Your task to perform on an android device: Turn off the flashlight Image 0: 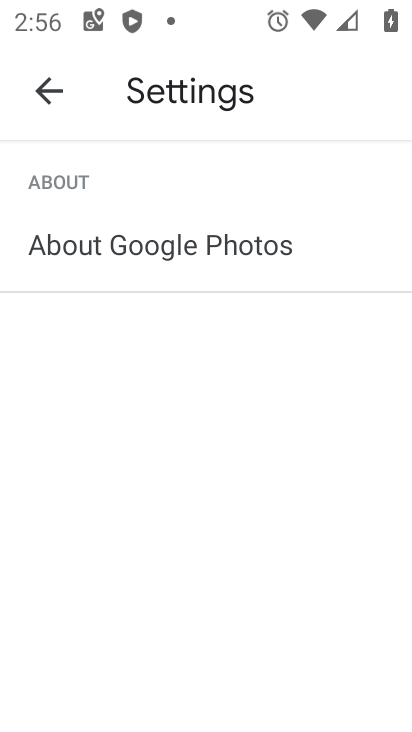
Step 0: press home button
Your task to perform on an android device: Turn off the flashlight Image 1: 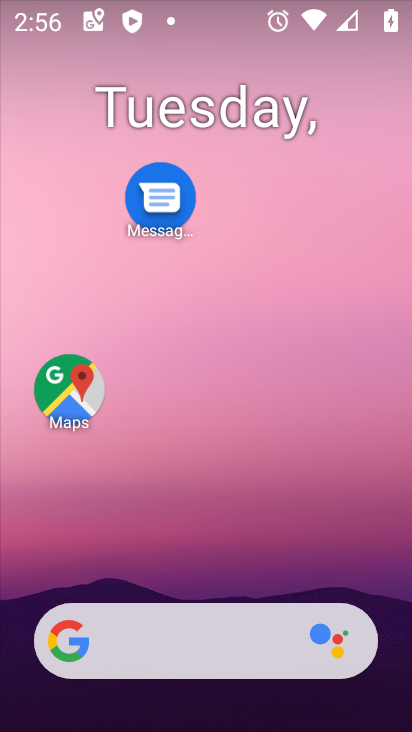
Step 1: drag from (204, 574) to (217, 224)
Your task to perform on an android device: Turn off the flashlight Image 2: 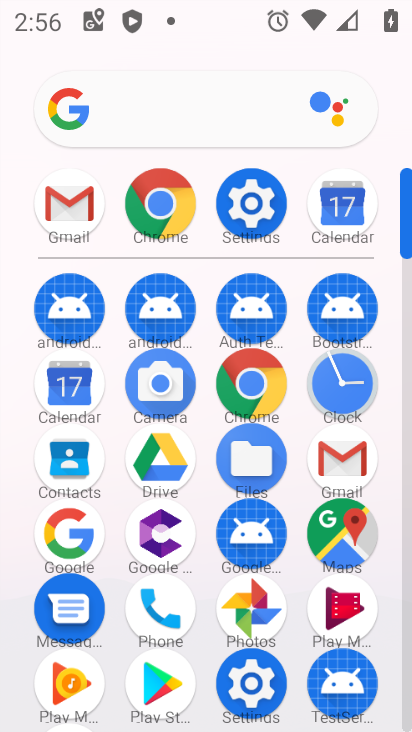
Step 2: click (243, 209)
Your task to perform on an android device: Turn off the flashlight Image 3: 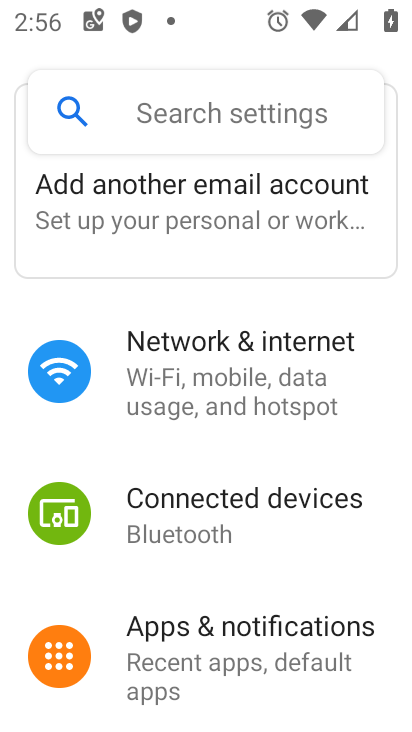
Step 3: drag from (225, 271) to (262, 363)
Your task to perform on an android device: Turn off the flashlight Image 4: 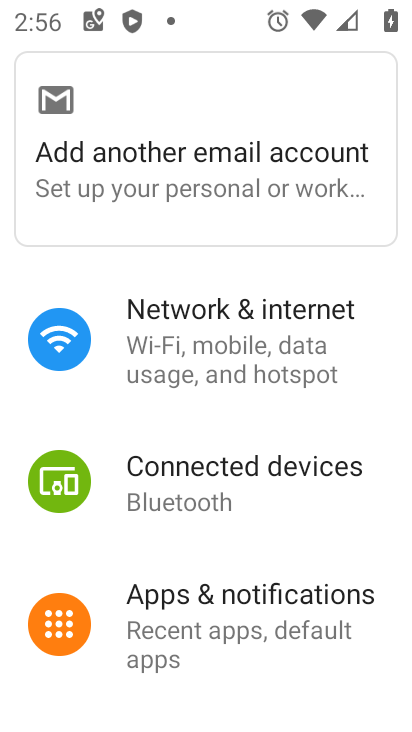
Step 4: drag from (248, 570) to (248, 366)
Your task to perform on an android device: Turn off the flashlight Image 5: 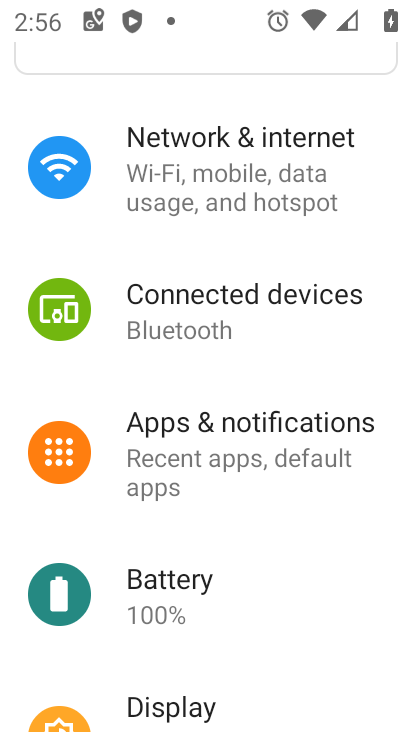
Step 5: drag from (225, 609) to (258, 349)
Your task to perform on an android device: Turn off the flashlight Image 6: 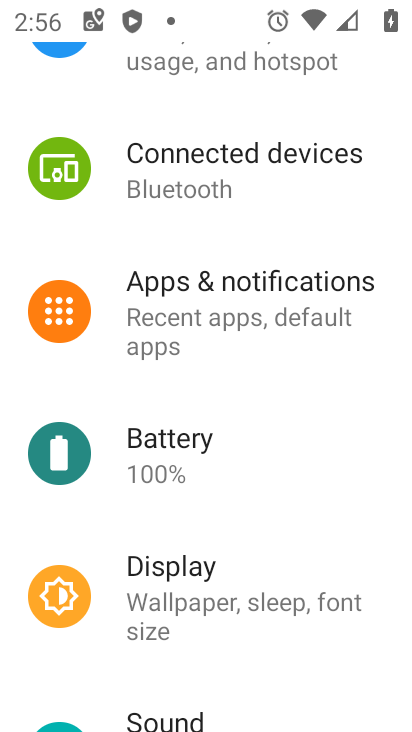
Step 6: click (205, 564)
Your task to perform on an android device: Turn off the flashlight Image 7: 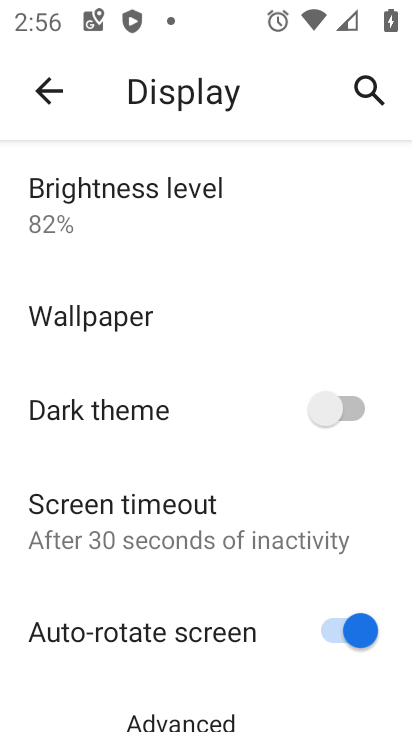
Step 7: task complete